Your task to perform on an android device: open chrome and create a bookmark for the current page Image 0: 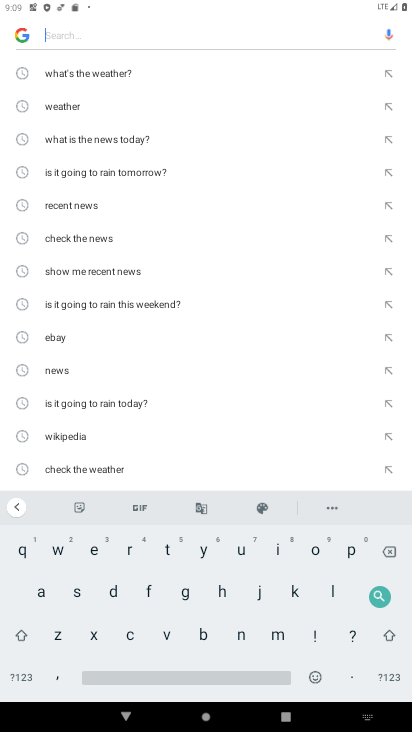
Step 0: press home button
Your task to perform on an android device: open chrome and create a bookmark for the current page Image 1: 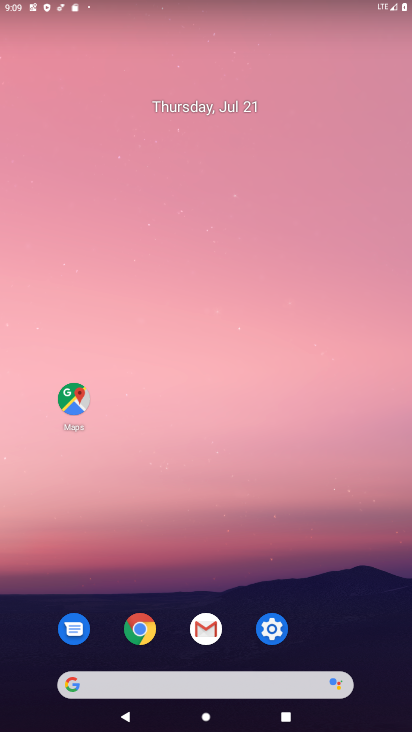
Step 1: click (133, 639)
Your task to perform on an android device: open chrome and create a bookmark for the current page Image 2: 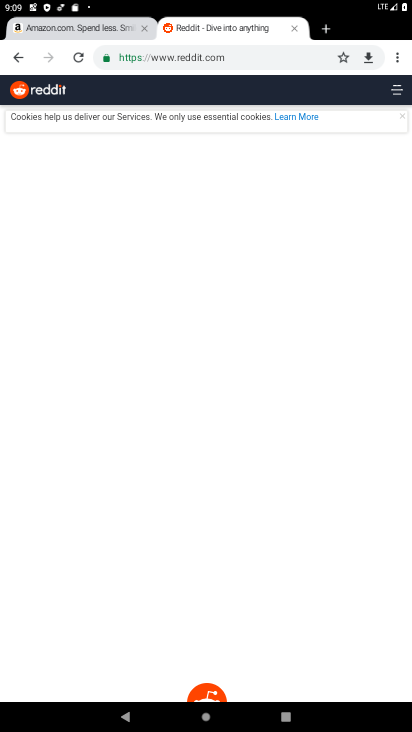
Step 2: click (395, 66)
Your task to perform on an android device: open chrome and create a bookmark for the current page Image 3: 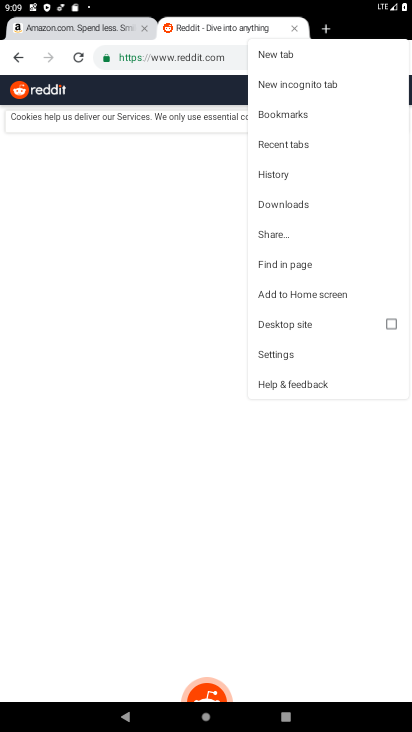
Step 3: click (292, 118)
Your task to perform on an android device: open chrome and create a bookmark for the current page Image 4: 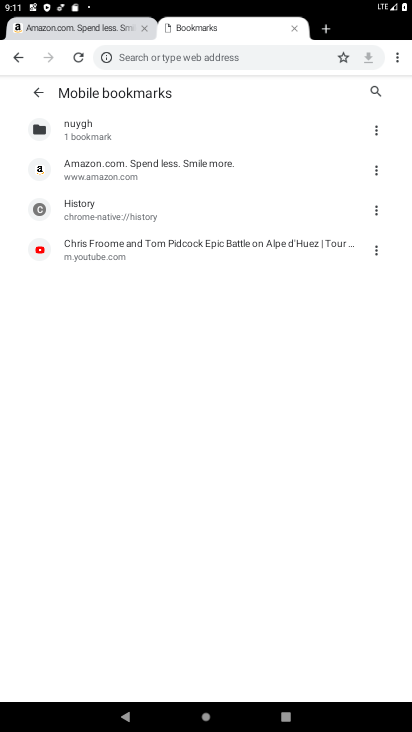
Step 4: task complete